Your task to perform on an android device: find photos in the google photos app Image 0: 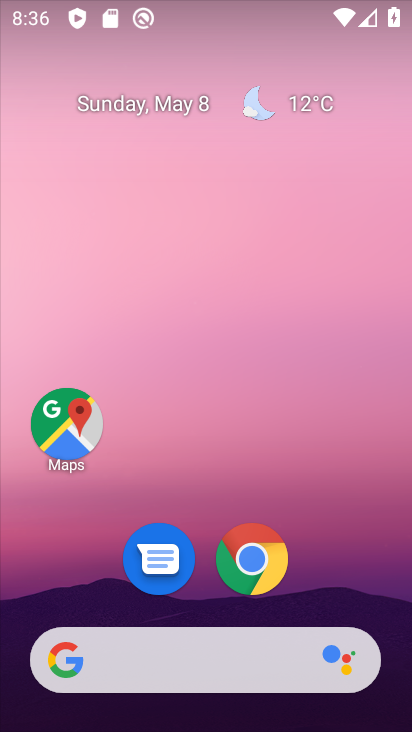
Step 0: drag from (196, 630) to (271, 3)
Your task to perform on an android device: find photos in the google photos app Image 1: 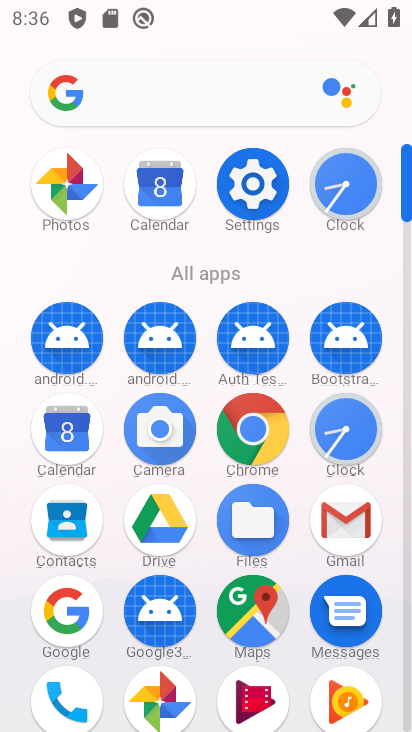
Step 1: click (164, 682)
Your task to perform on an android device: find photos in the google photos app Image 2: 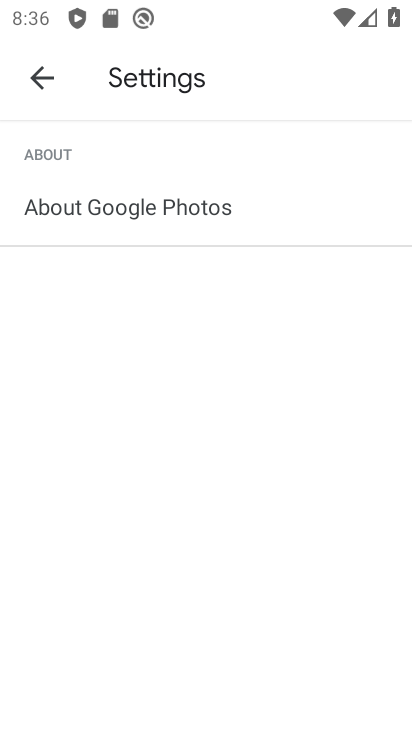
Step 2: click (39, 77)
Your task to perform on an android device: find photos in the google photos app Image 3: 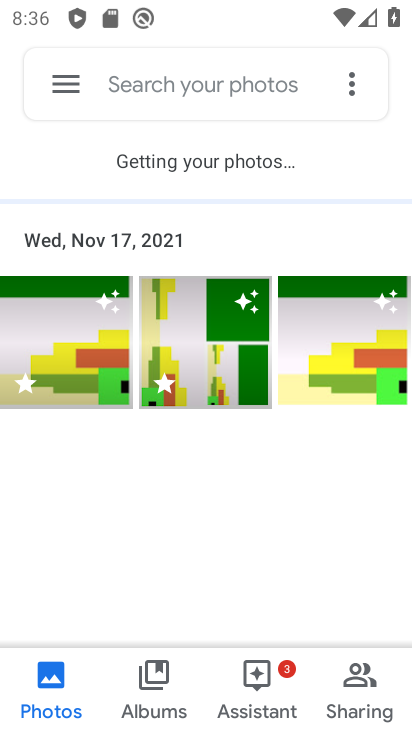
Step 3: task complete